Your task to perform on an android device: Open internet settings Image 0: 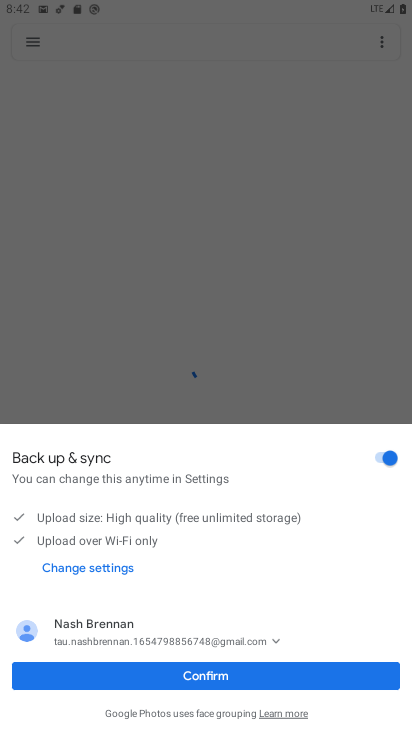
Step 0: press home button
Your task to perform on an android device: Open internet settings Image 1: 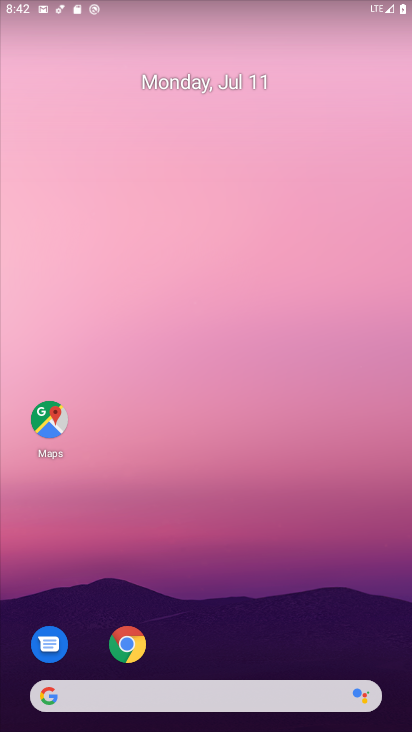
Step 1: drag from (172, 686) to (218, 430)
Your task to perform on an android device: Open internet settings Image 2: 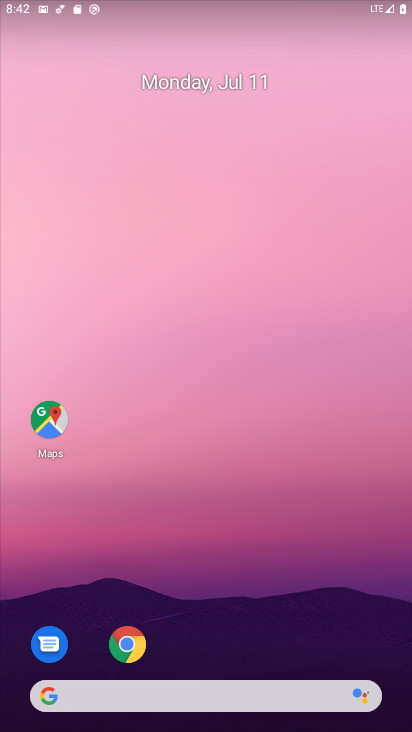
Step 2: drag from (236, 677) to (244, 353)
Your task to perform on an android device: Open internet settings Image 3: 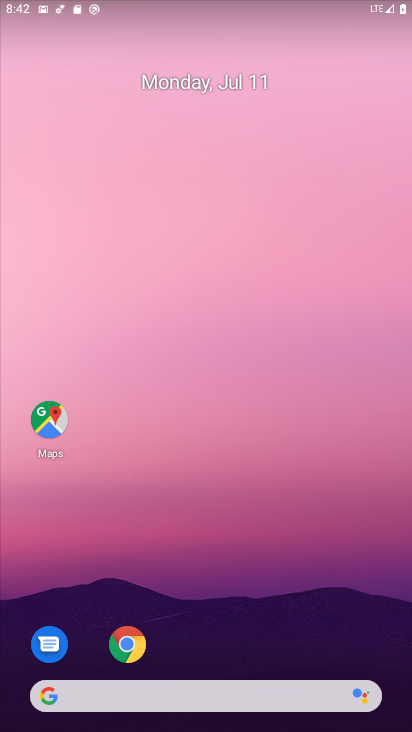
Step 3: drag from (217, 653) to (213, 210)
Your task to perform on an android device: Open internet settings Image 4: 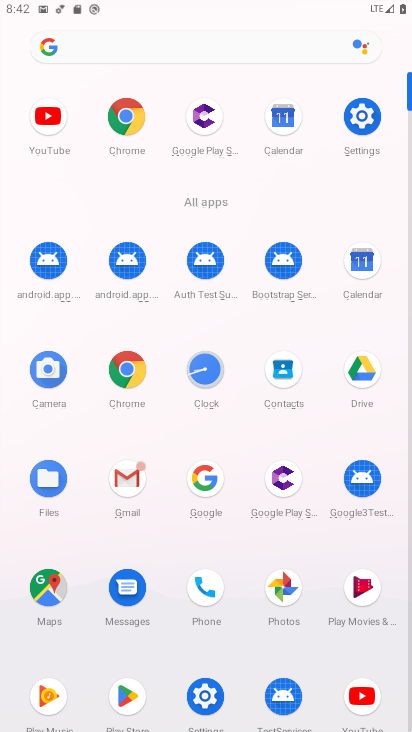
Step 4: click (366, 132)
Your task to perform on an android device: Open internet settings Image 5: 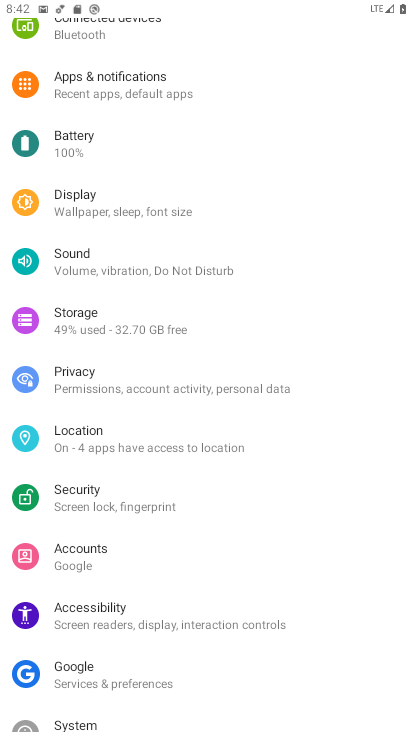
Step 5: drag from (165, 48) to (172, 620)
Your task to perform on an android device: Open internet settings Image 6: 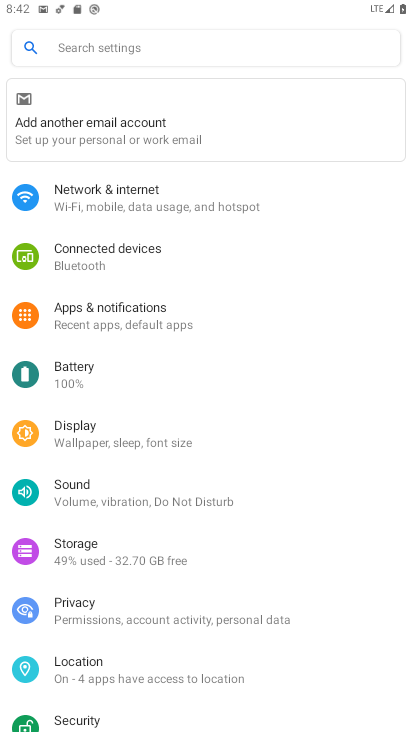
Step 6: click (103, 208)
Your task to perform on an android device: Open internet settings Image 7: 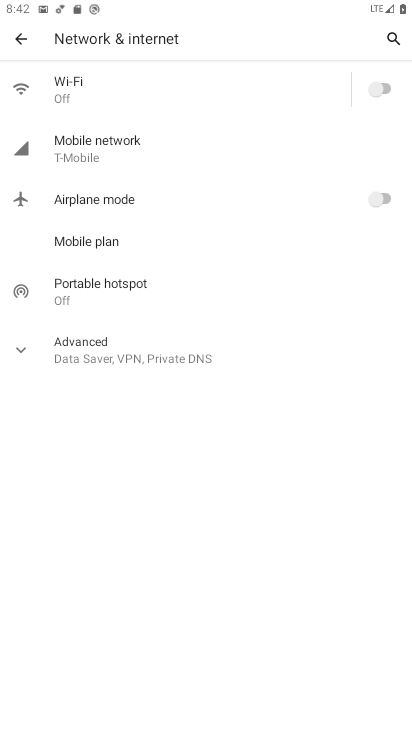
Step 7: click (107, 362)
Your task to perform on an android device: Open internet settings Image 8: 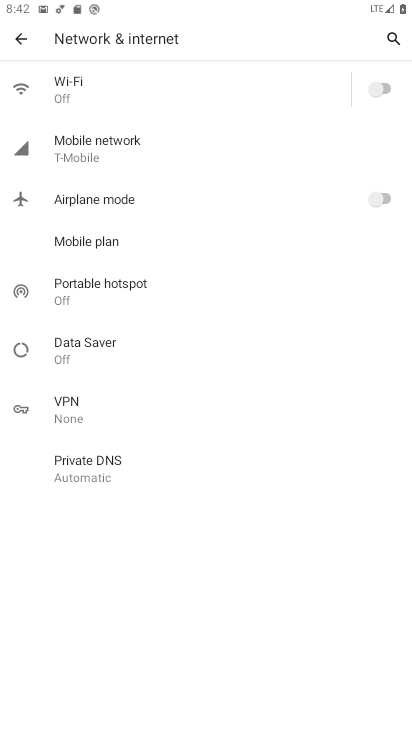
Step 8: task complete